Your task to perform on an android device: Open maps Image 0: 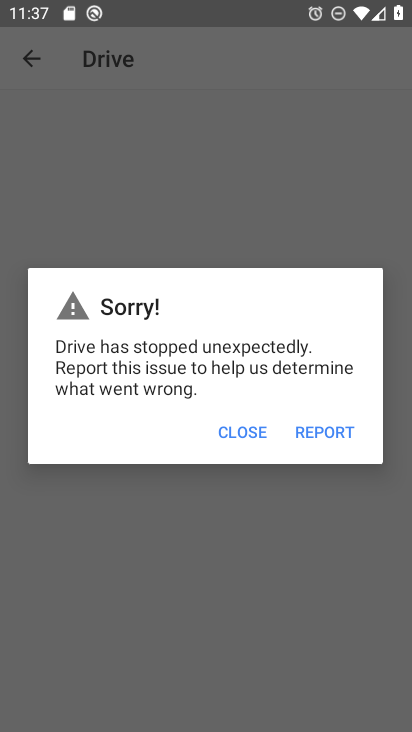
Step 0: press home button
Your task to perform on an android device: Open maps Image 1: 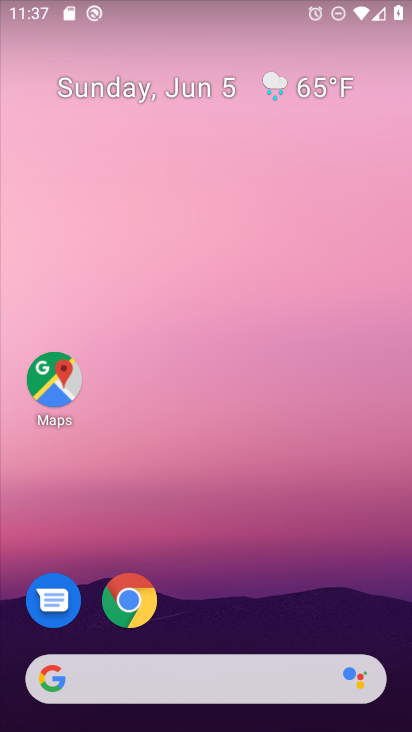
Step 1: drag from (364, 506) to (292, 66)
Your task to perform on an android device: Open maps Image 2: 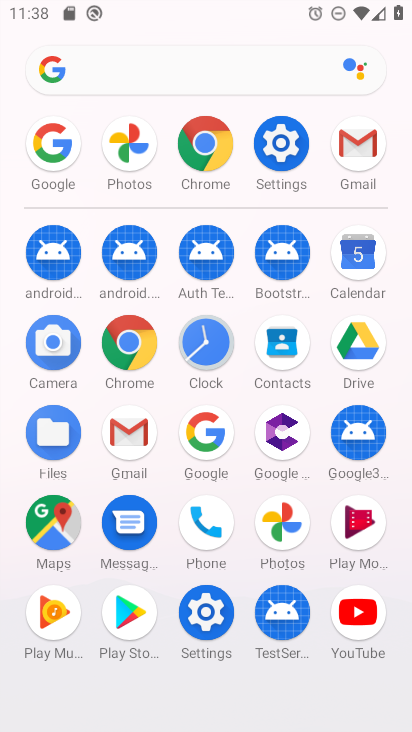
Step 2: click (54, 529)
Your task to perform on an android device: Open maps Image 3: 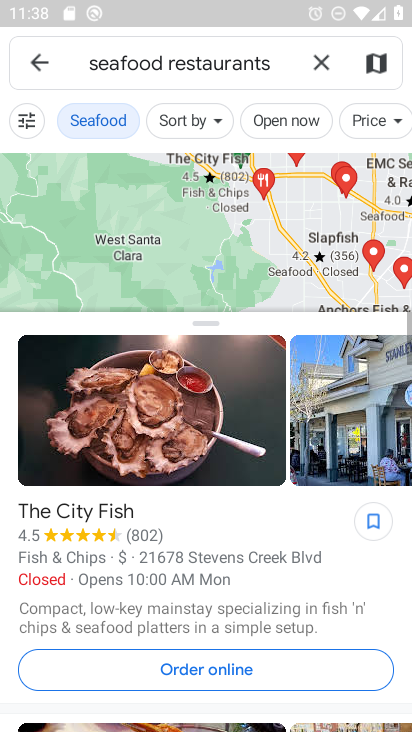
Step 3: click (321, 59)
Your task to perform on an android device: Open maps Image 4: 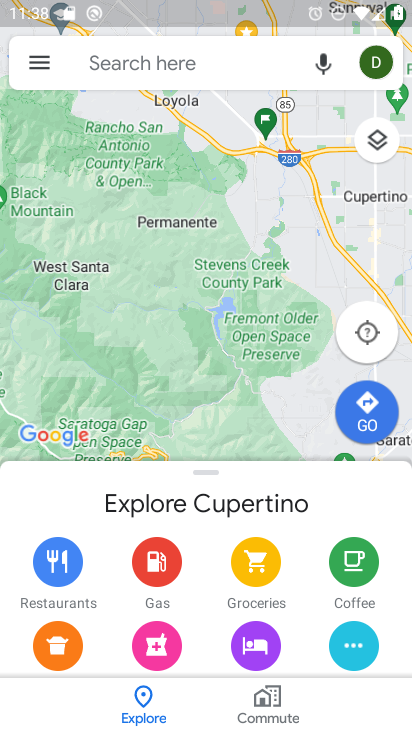
Step 4: task complete